Your task to perform on an android device: open chrome privacy settings Image 0: 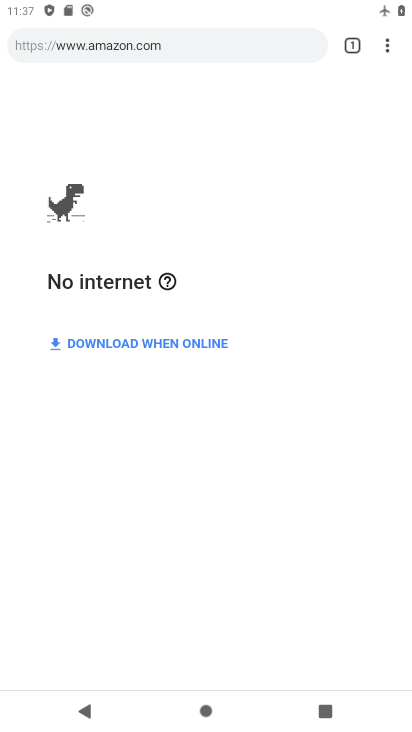
Step 0: click (387, 55)
Your task to perform on an android device: open chrome privacy settings Image 1: 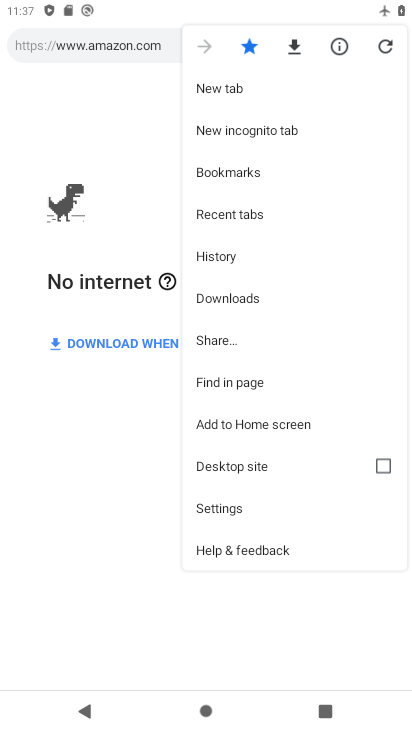
Step 1: click (282, 500)
Your task to perform on an android device: open chrome privacy settings Image 2: 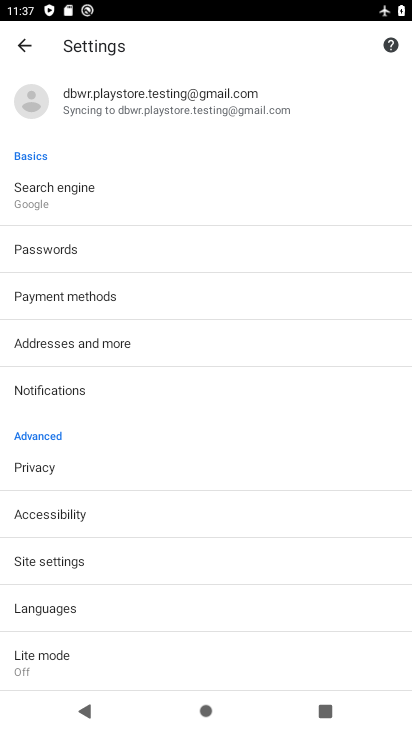
Step 2: click (199, 468)
Your task to perform on an android device: open chrome privacy settings Image 3: 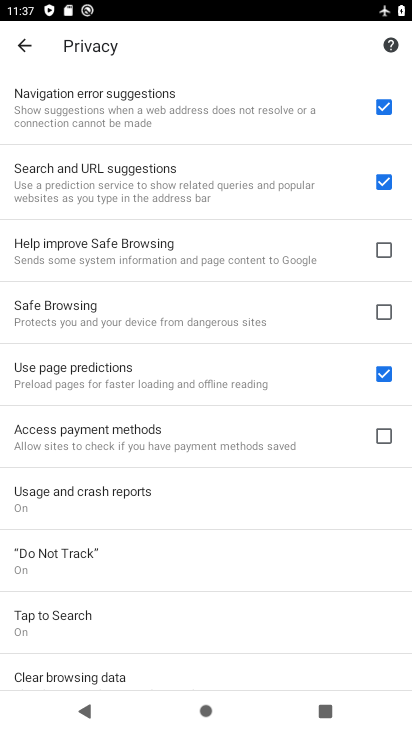
Step 3: task complete